Your task to perform on an android device: change alarm snooze length Image 0: 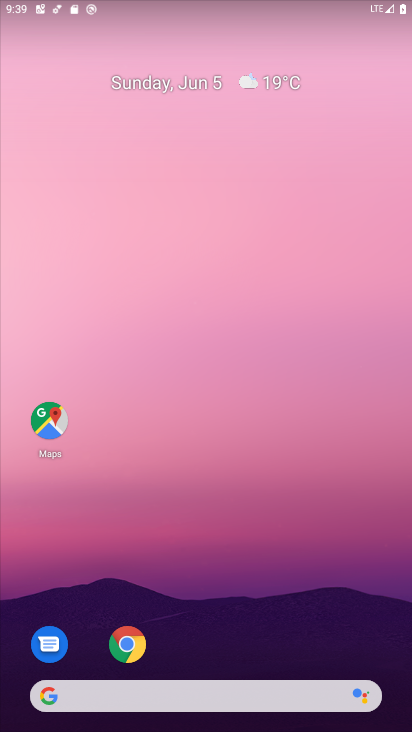
Step 0: drag from (271, 570) to (136, 22)
Your task to perform on an android device: change alarm snooze length Image 1: 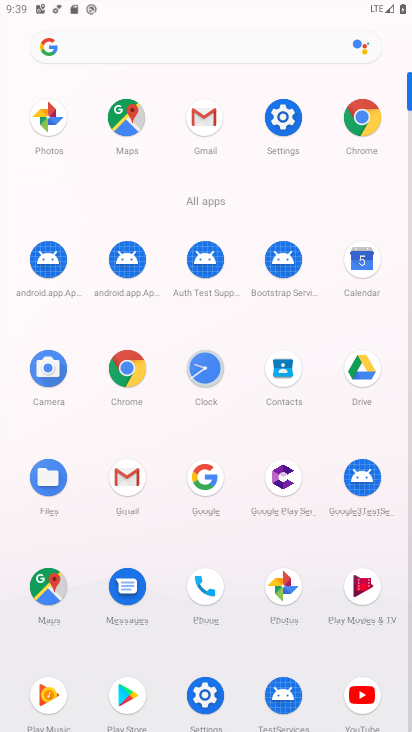
Step 1: click (208, 363)
Your task to perform on an android device: change alarm snooze length Image 2: 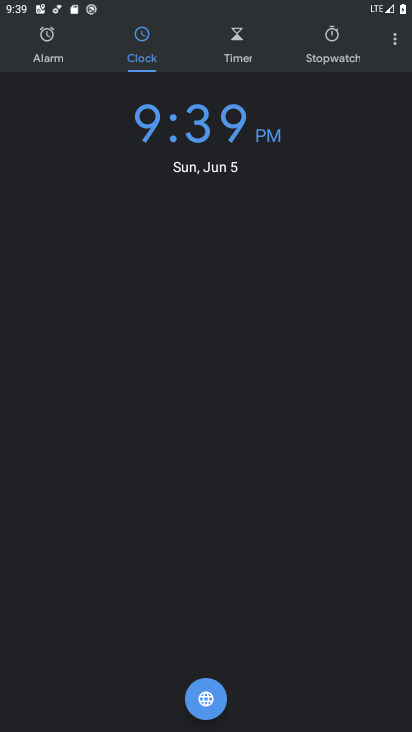
Step 2: click (390, 32)
Your task to perform on an android device: change alarm snooze length Image 3: 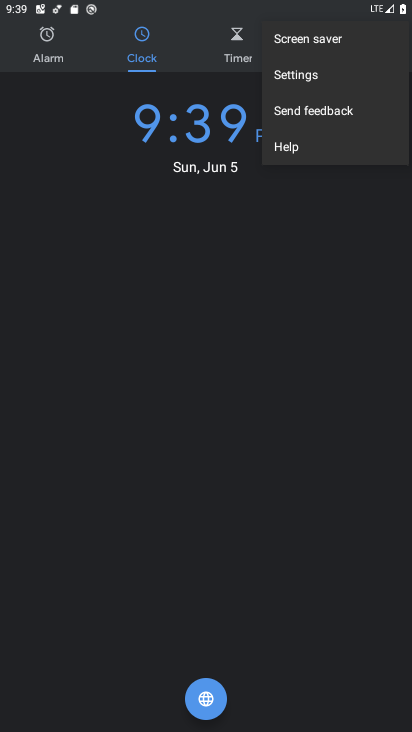
Step 3: click (335, 69)
Your task to perform on an android device: change alarm snooze length Image 4: 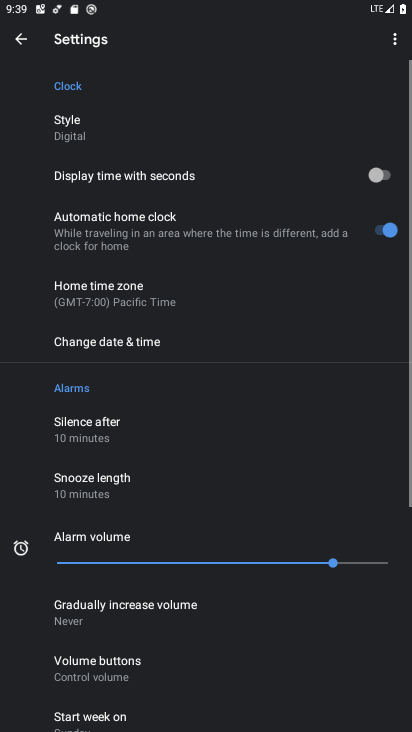
Step 4: click (126, 495)
Your task to perform on an android device: change alarm snooze length Image 5: 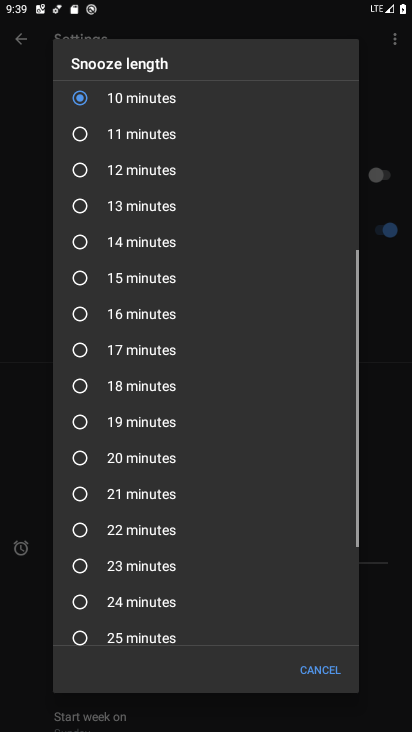
Step 5: click (197, 144)
Your task to perform on an android device: change alarm snooze length Image 6: 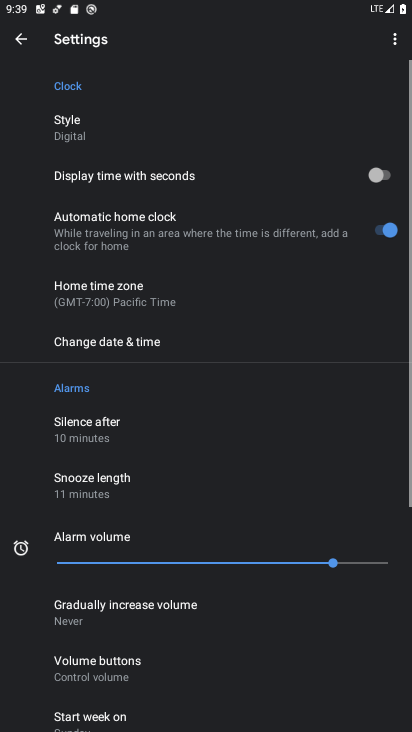
Step 6: task complete